Your task to perform on an android device: find photos in the google photos app Image 0: 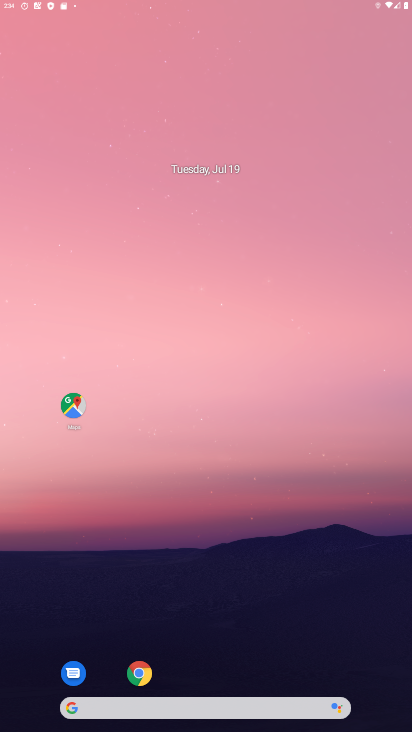
Step 0: click (369, 243)
Your task to perform on an android device: find photos in the google photos app Image 1: 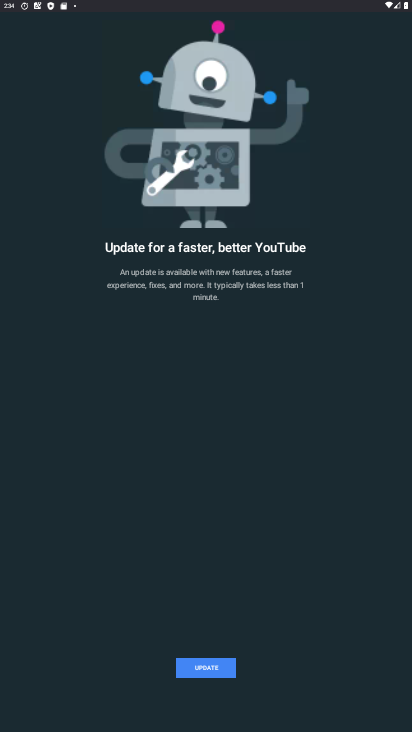
Step 1: press home button
Your task to perform on an android device: find photos in the google photos app Image 2: 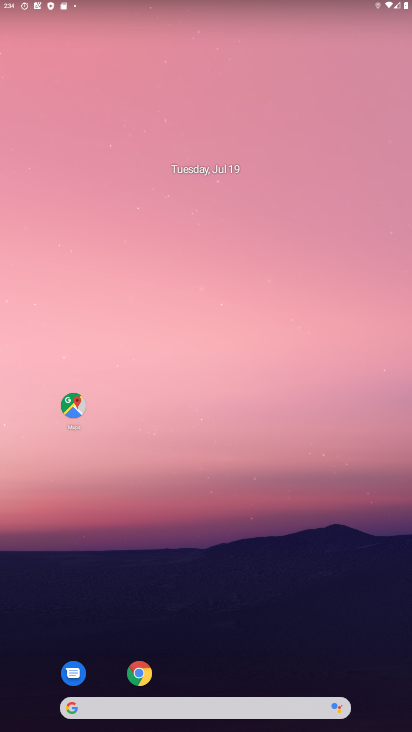
Step 2: drag from (254, 647) to (261, 381)
Your task to perform on an android device: find photos in the google photos app Image 3: 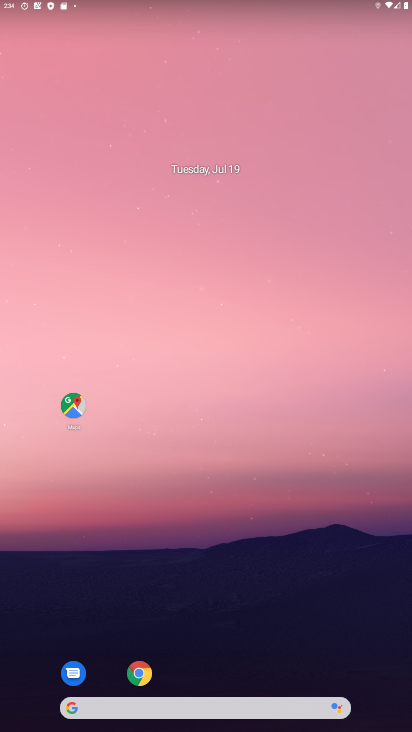
Step 3: drag from (248, 601) to (265, 230)
Your task to perform on an android device: find photos in the google photos app Image 4: 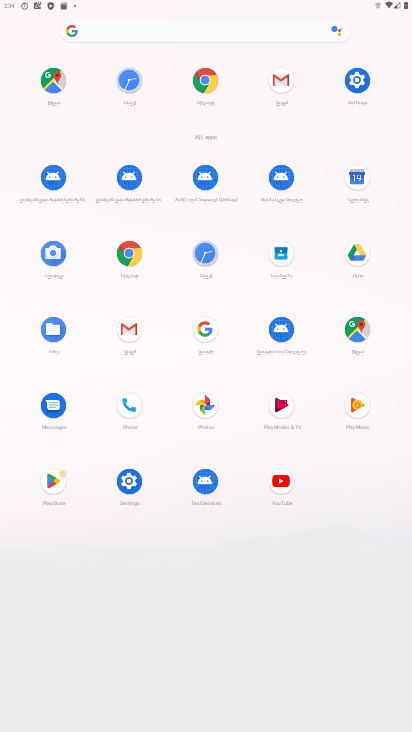
Step 4: click (204, 416)
Your task to perform on an android device: find photos in the google photos app Image 5: 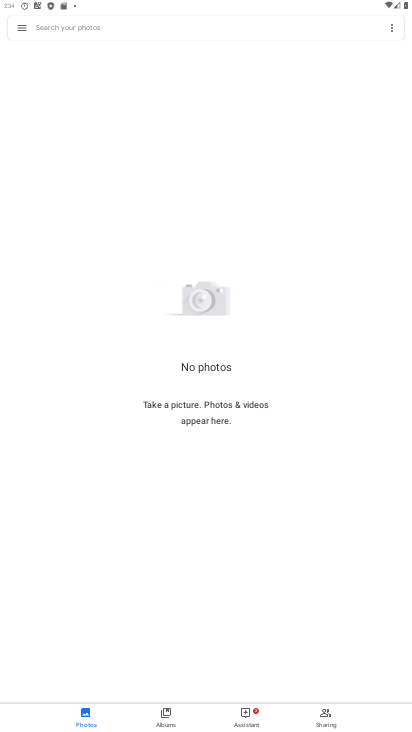
Step 5: task complete